Your task to perform on an android device: toggle wifi Image 0: 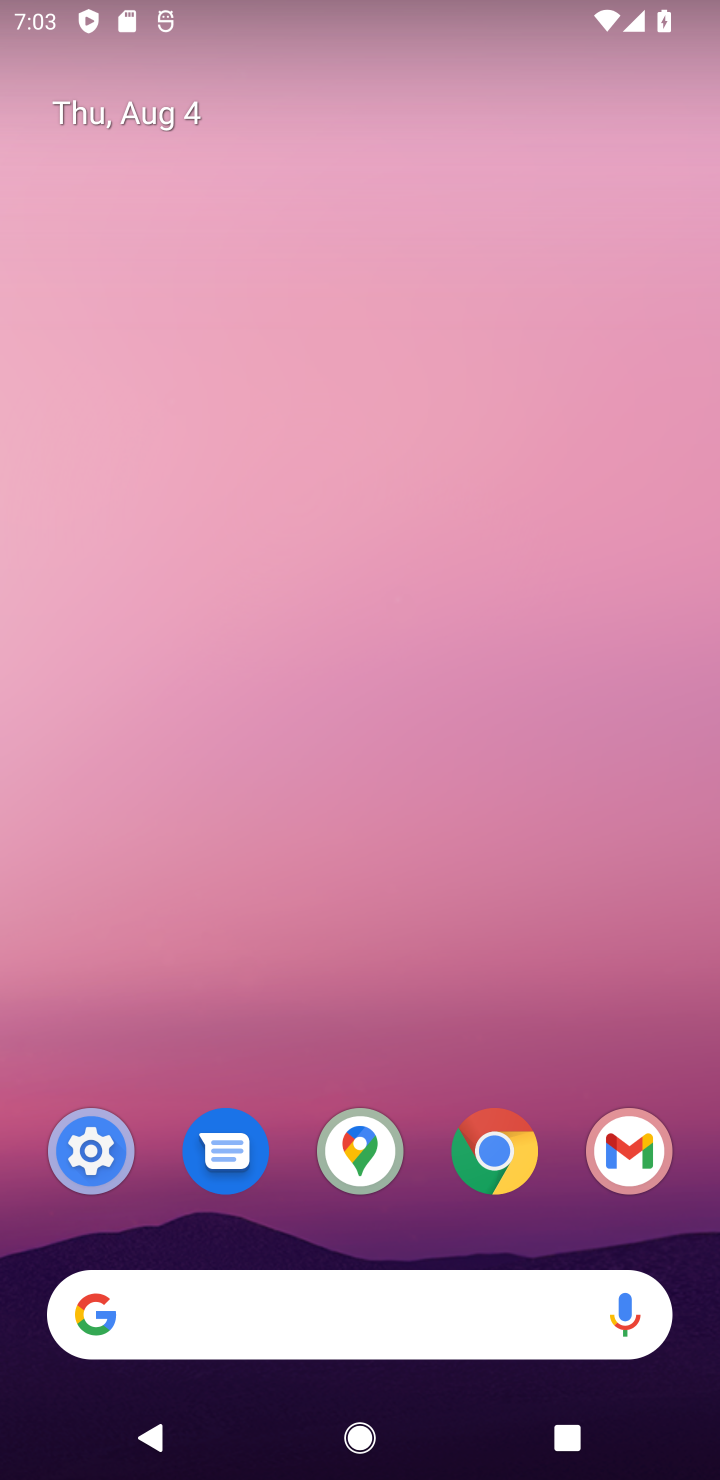
Step 0: click (83, 1154)
Your task to perform on an android device: toggle wifi Image 1: 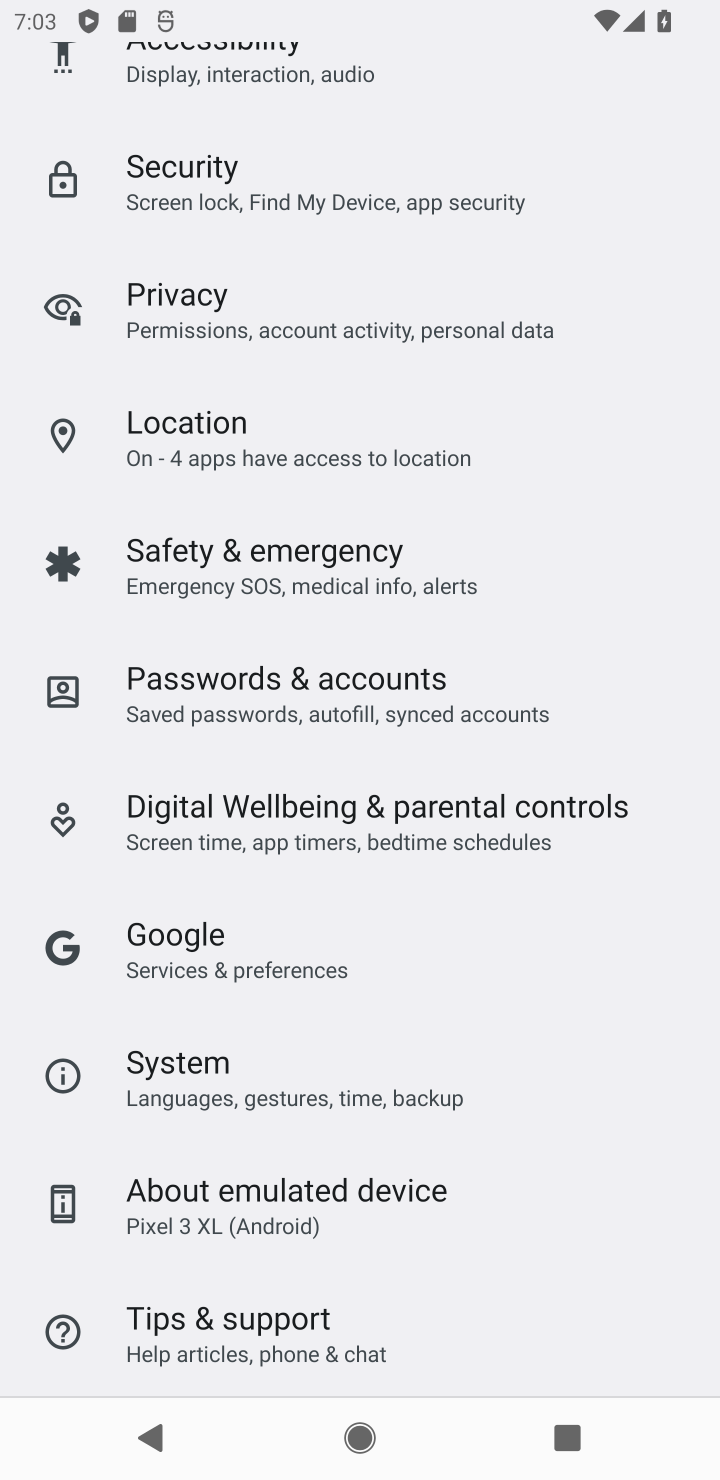
Step 1: drag from (507, 263) to (705, 306)
Your task to perform on an android device: toggle wifi Image 2: 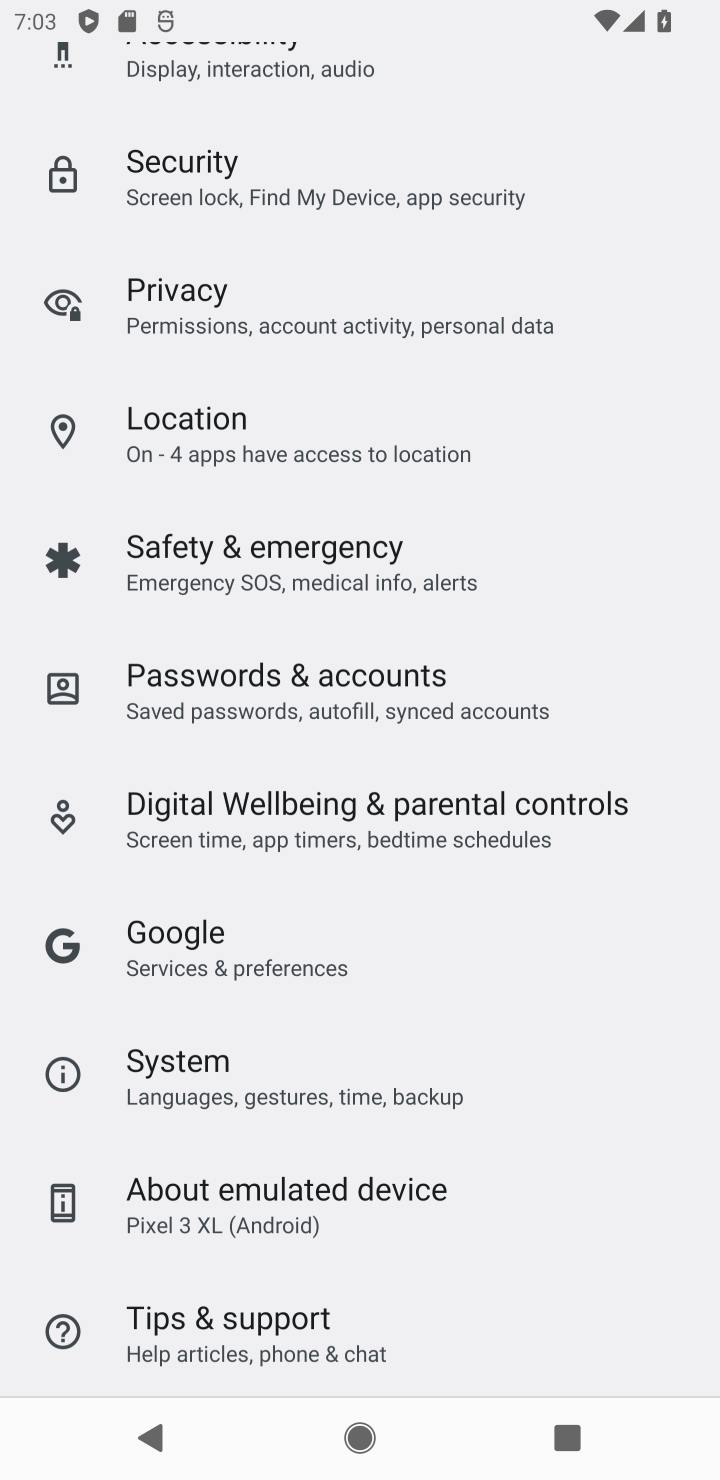
Step 2: drag from (545, 263) to (710, 440)
Your task to perform on an android device: toggle wifi Image 3: 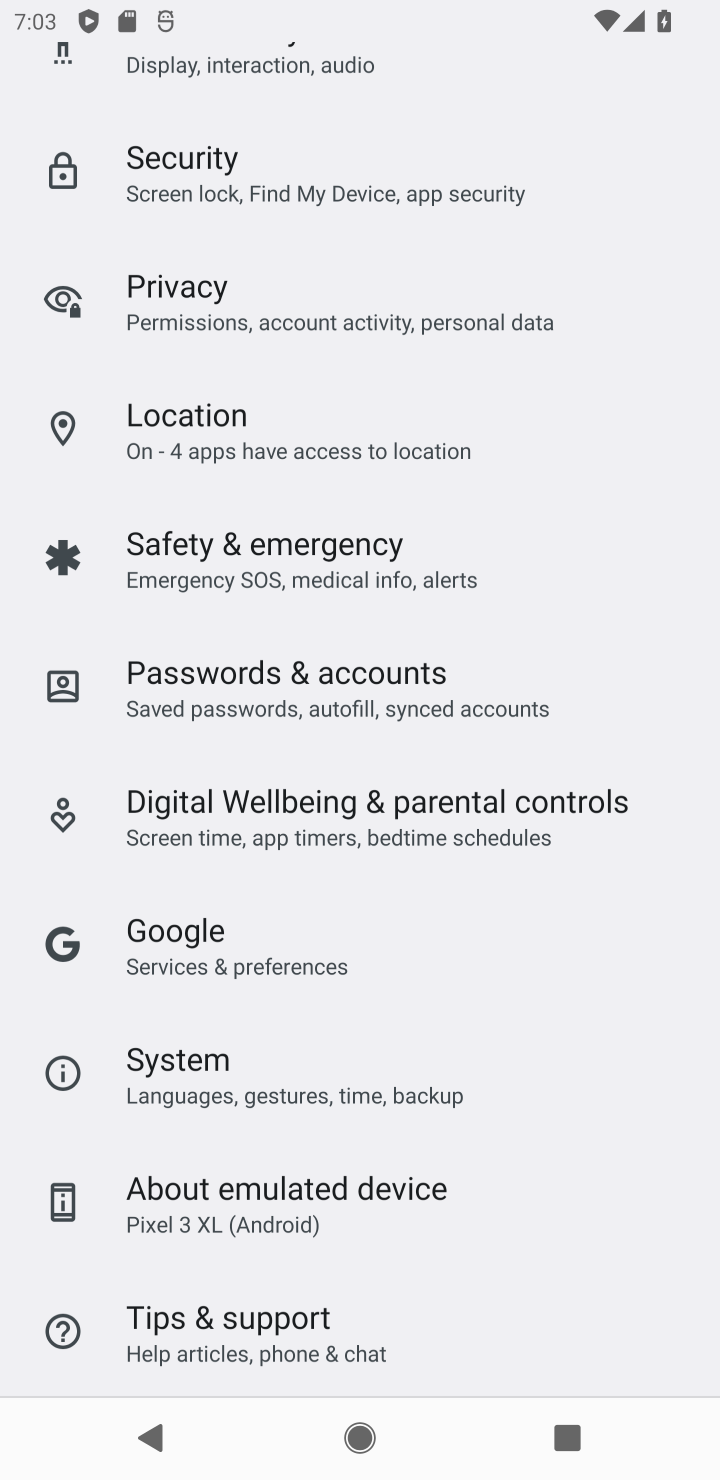
Step 3: drag from (410, 254) to (549, 1402)
Your task to perform on an android device: toggle wifi Image 4: 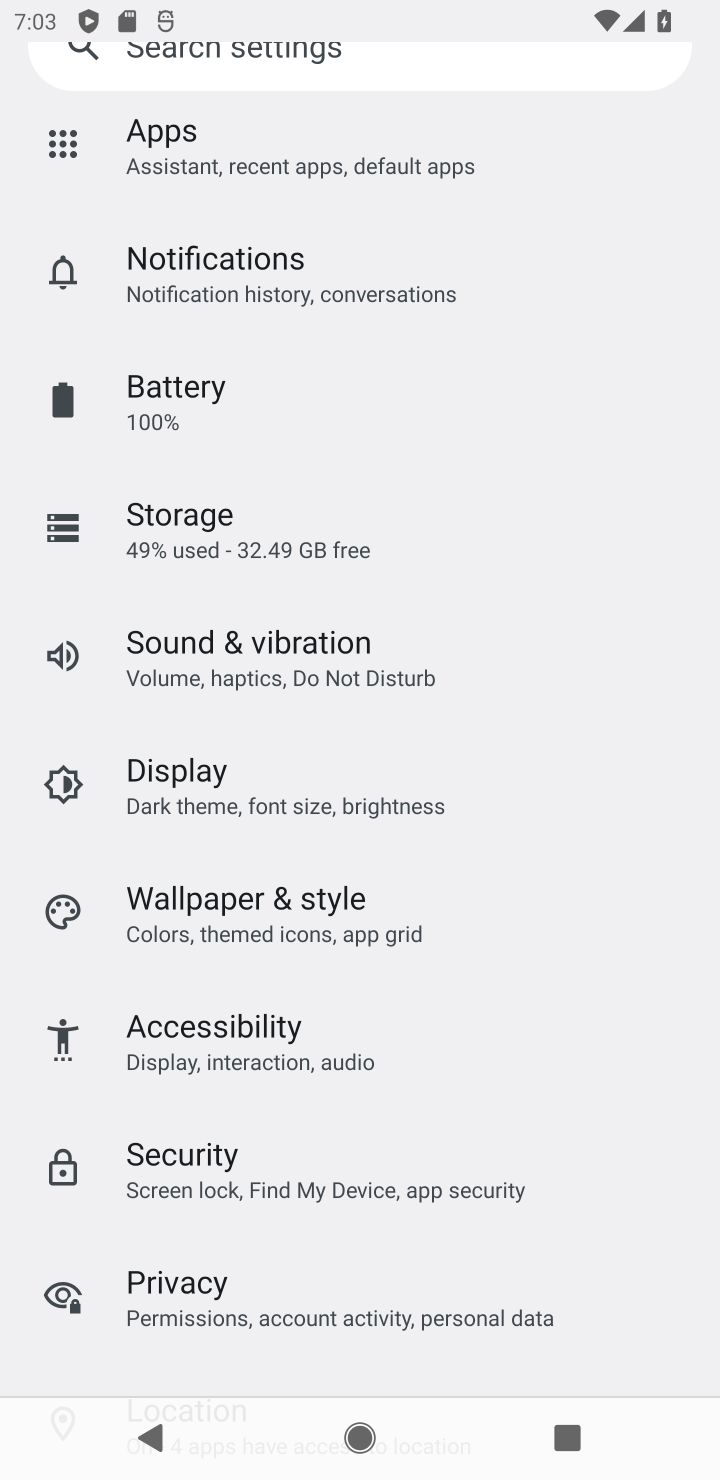
Step 4: drag from (280, 193) to (488, 1399)
Your task to perform on an android device: toggle wifi Image 5: 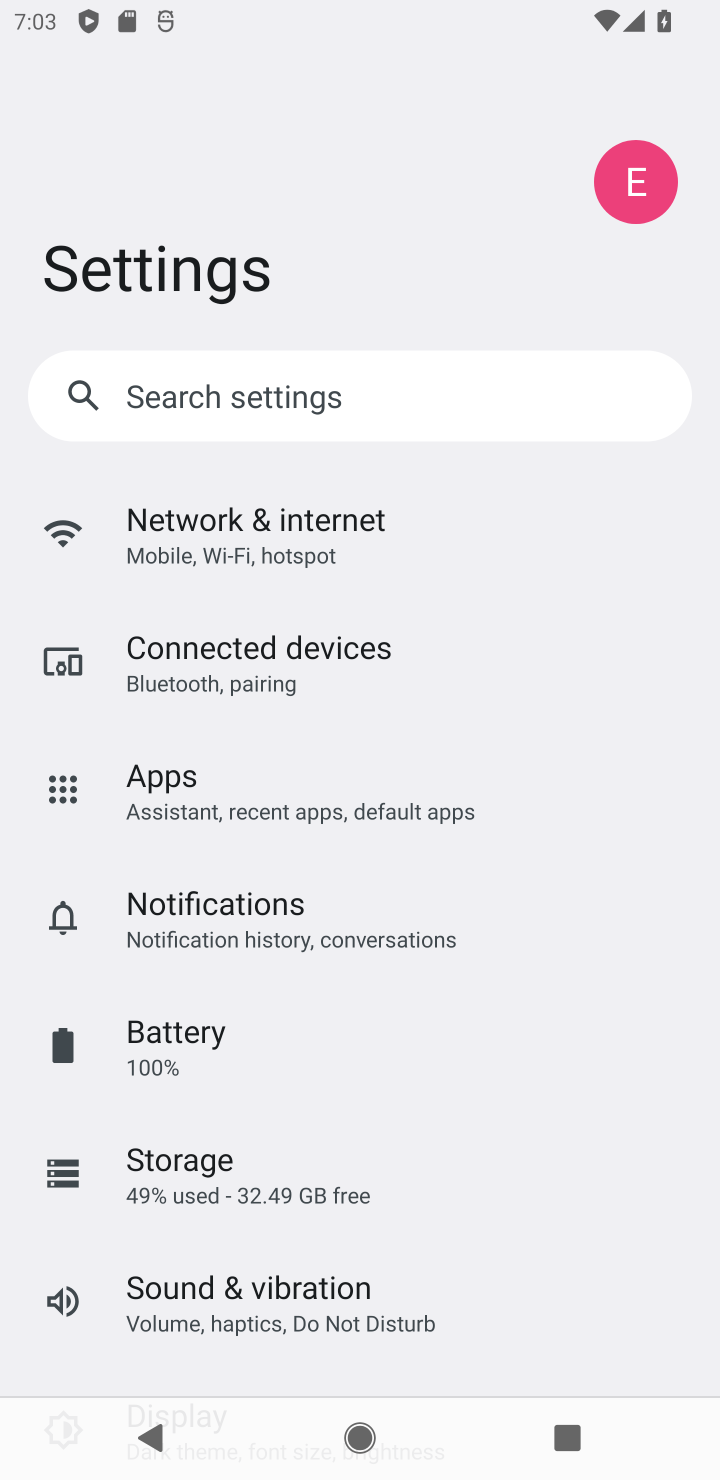
Step 5: click (232, 556)
Your task to perform on an android device: toggle wifi Image 6: 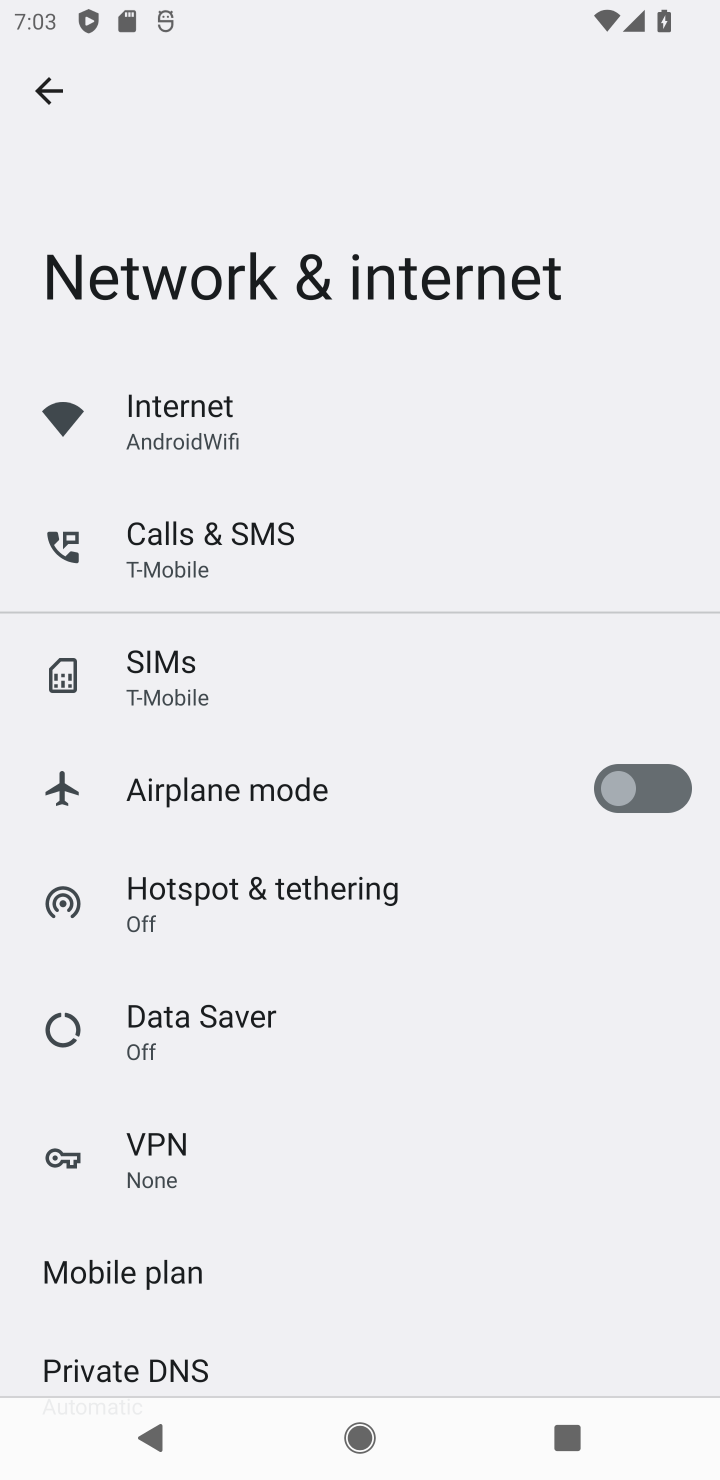
Step 6: click (335, 427)
Your task to perform on an android device: toggle wifi Image 7: 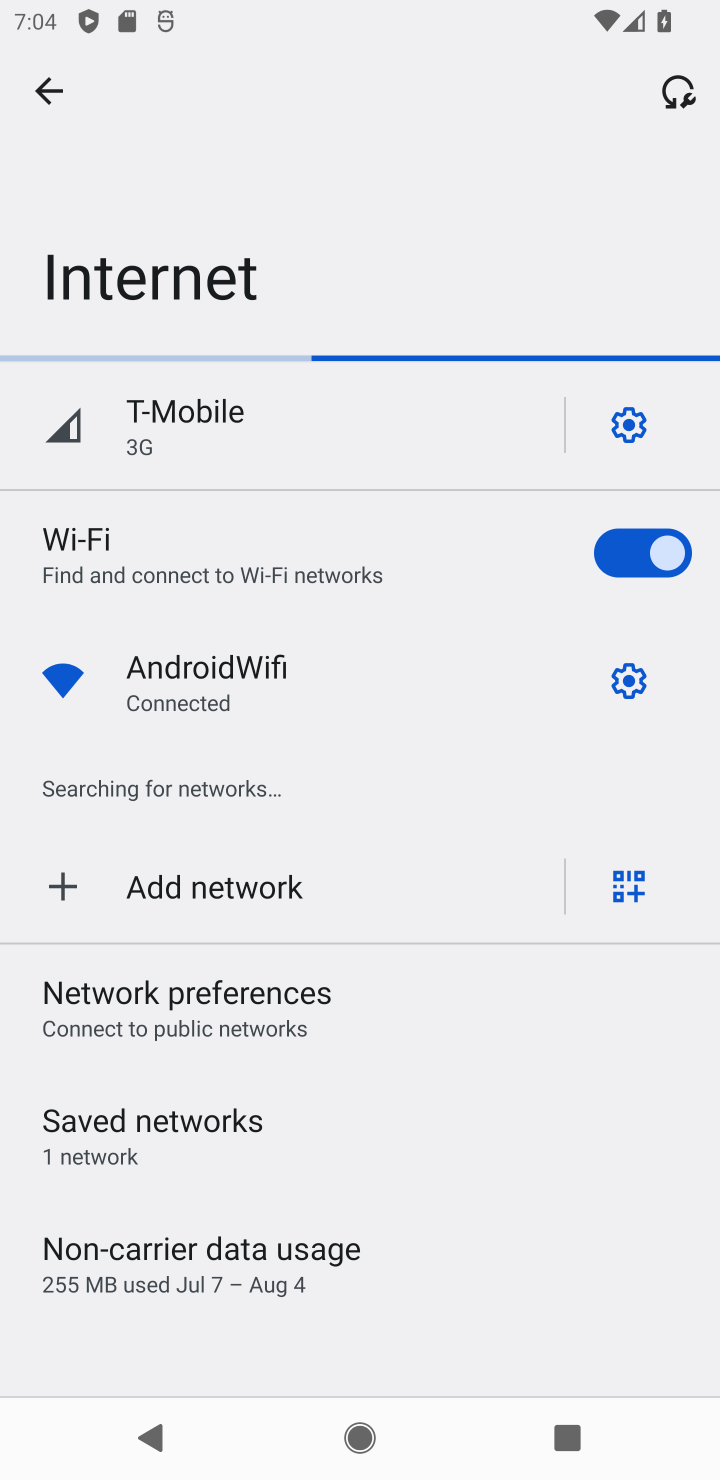
Step 7: click (631, 576)
Your task to perform on an android device: toggle wifi Image 8: 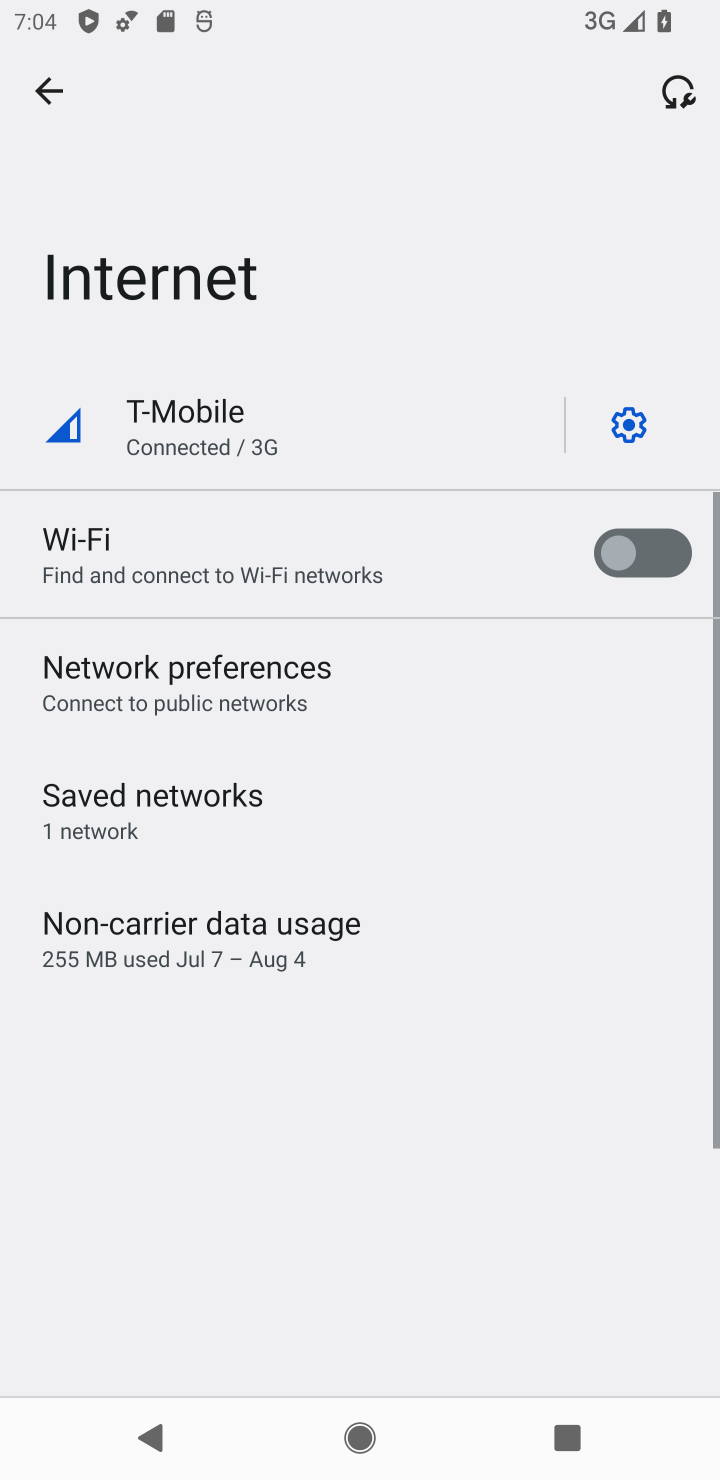
Step 8: task complete